Your task to perform on an android device: refresh tabs in the chrome app Image 0: 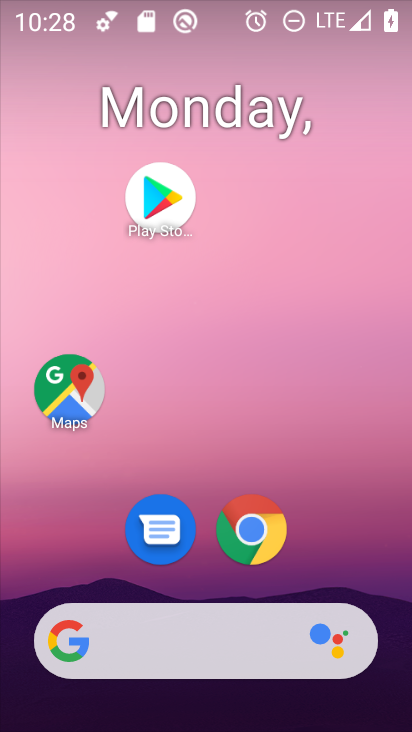
Step 0: click (253, 534)
Your task to perform on an android device: refresh tabs in the chrome app Image 1: 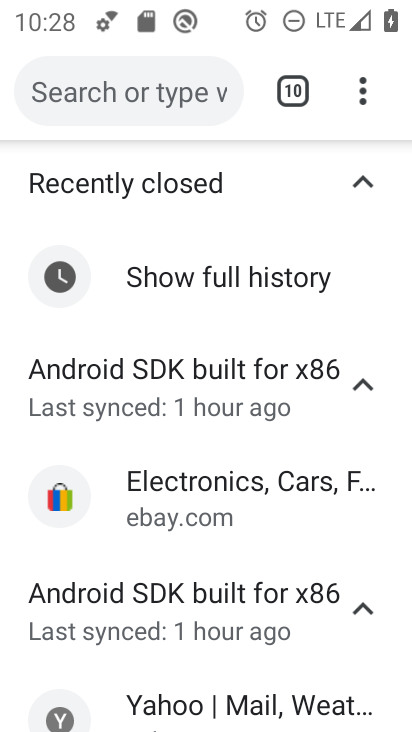
Step 1: click (359, 89)
Your task to perform on an android device: refresh tabs in the chrome app Image 2: 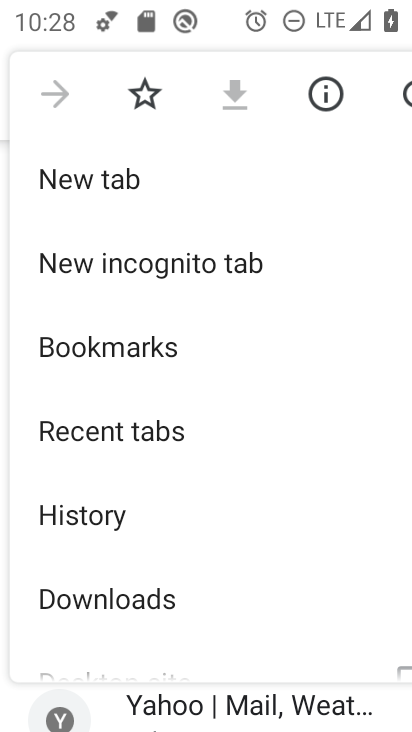
Step 2: click (408, 93)
Your task to perform on an android device: refresh tabs in the chrome app Image 3: 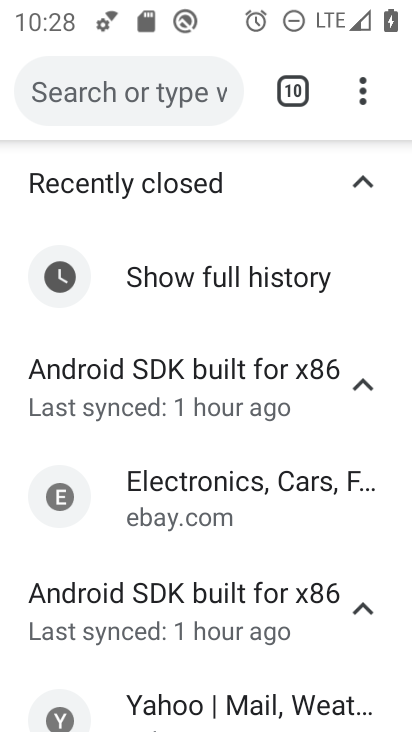
Step 3: task complete